Your task to perform on an android device: open a bookmark in the chrome app Image 0: 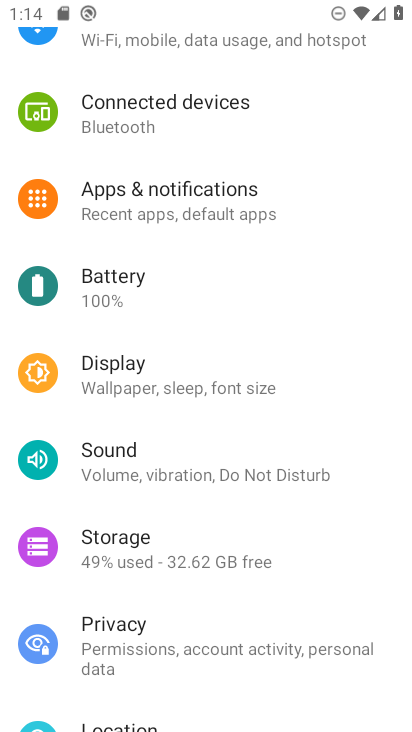
Step 0: press home button
Your task to perform on an android device: open a bookmark in the chrome app Image 1: 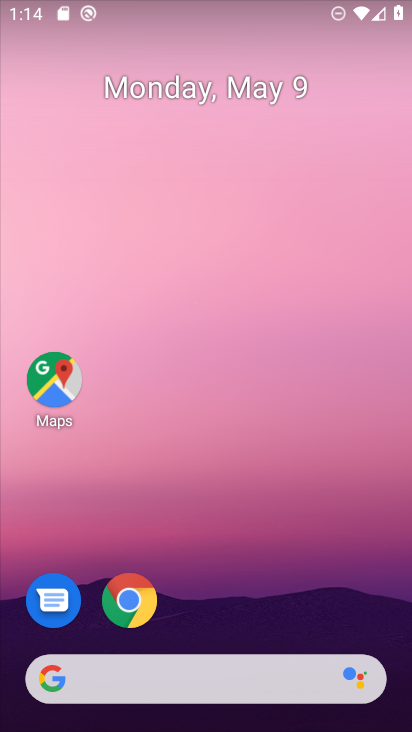
Step 1: drag from (221, 669) to (344, 76)
Your task to perform on an android device: open a bookmark in the chrome app Image 2: 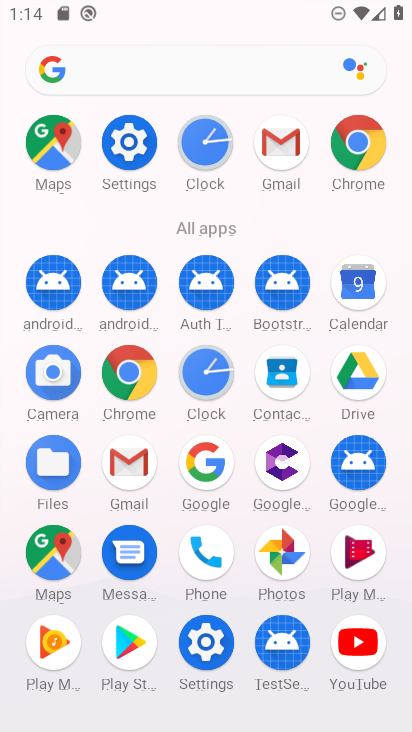
Step 2: click (371, 154)
Your task to perform on an android device: open a bookmark in the chrome app Image 3: 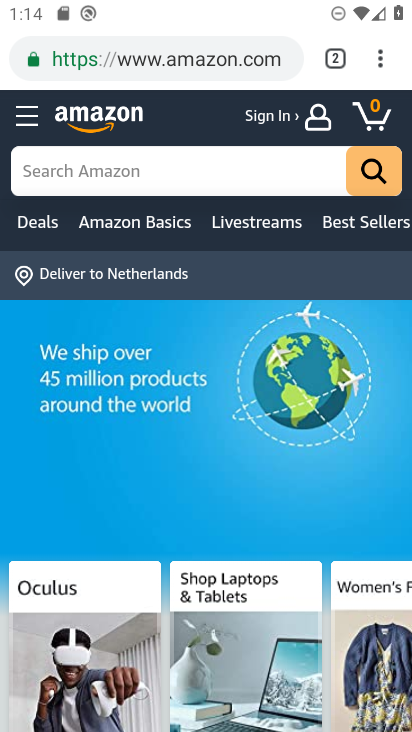
Step 3: task complete